Your task to perform on an android device: Show me popular games on the Play Store Image 0: 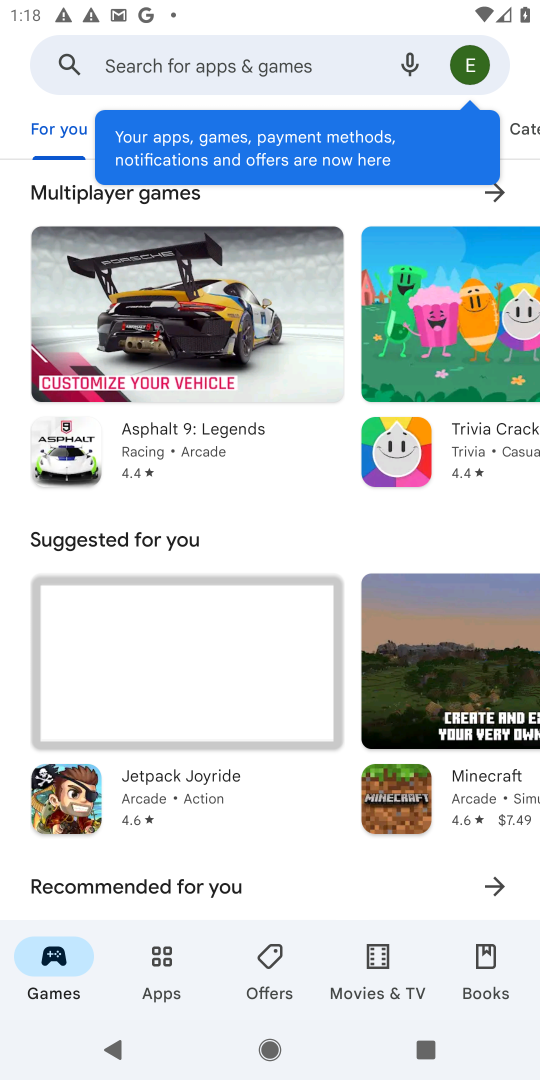
Step 0: drag from (265, 852) to (434, 120)
Your task to perform on an android device: Show me popular games on the Play Store Image 1: 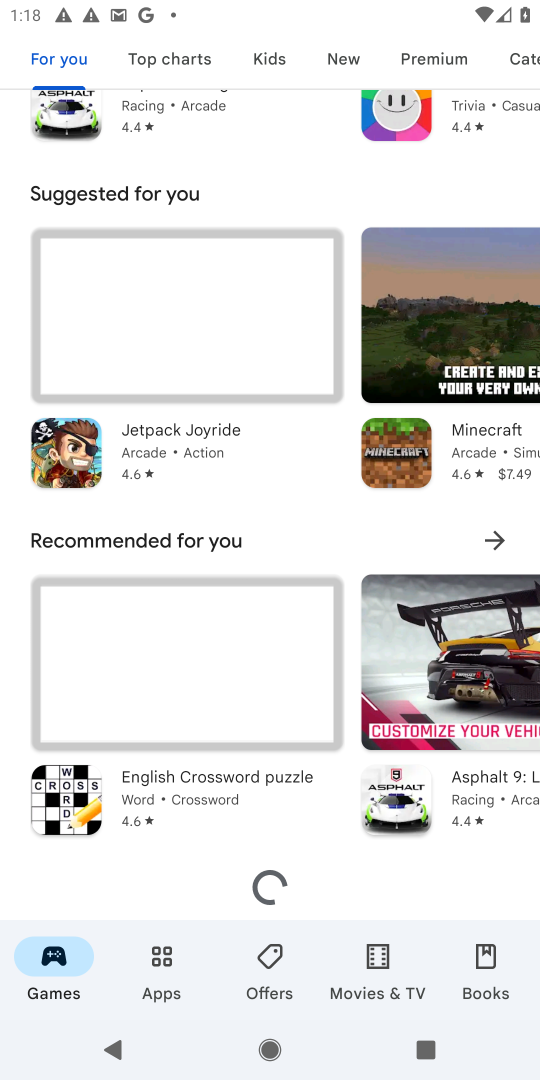
Step 1: task complete